Your task to perform on an android device: turn off wifi Image 0: 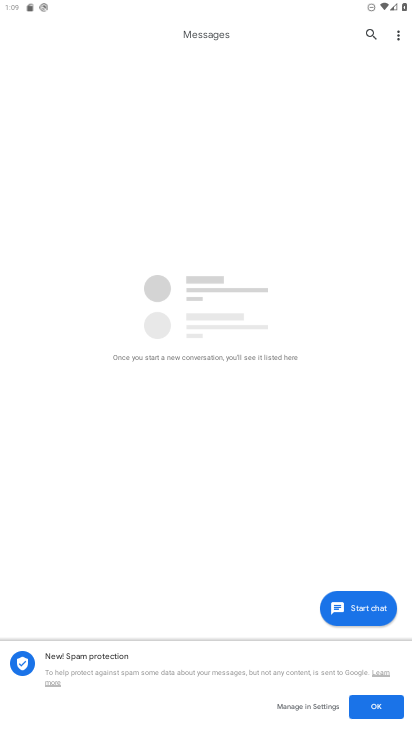
Step 0: drag from (321, 142) to (179, 731)
Your task to perform on an android device: turn off wifi Image 1: 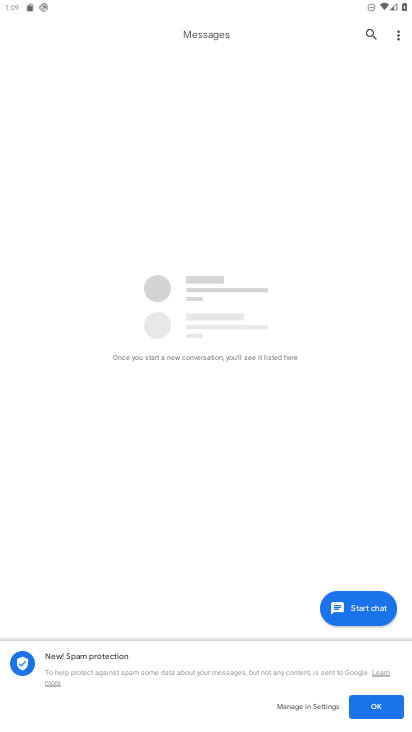
Step 1: drag from (289, 3) to (193, 627)
Your task to perform on an android device: turn off wifi Image 2: 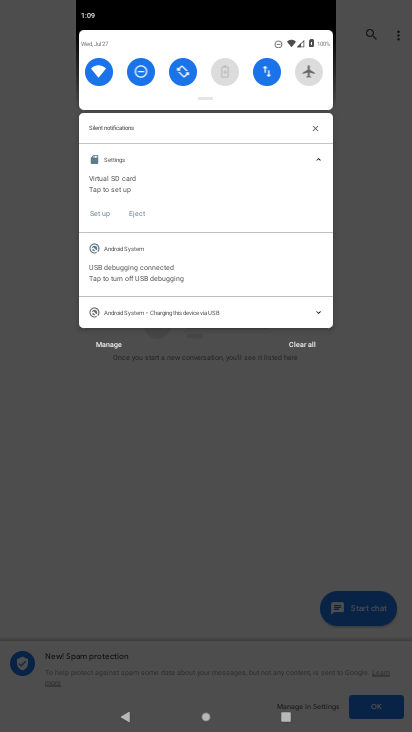
Step 2: click (95, 70)
Your task to perform on an android device: turn off wifi Image 3: 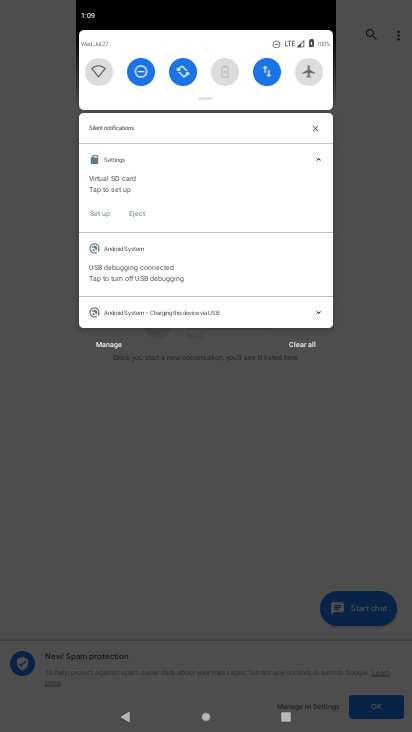
Step 3: task complete